Your task to perform on an android device: toggle translation in the chrome app Image 0: 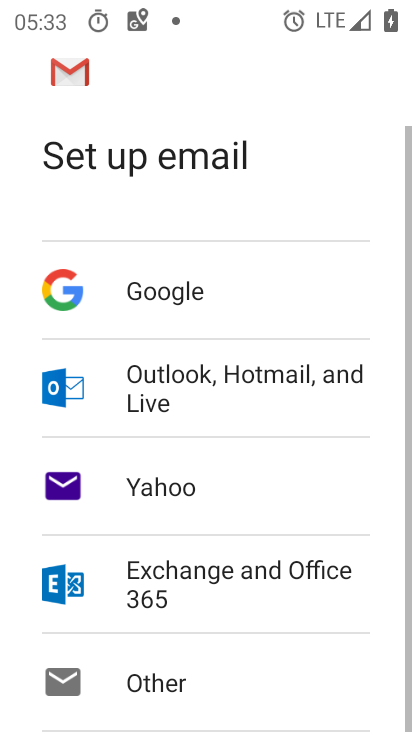
Step 0: press home button
Your task to perform on an android device: toggle translation in the chrome app Image 1: 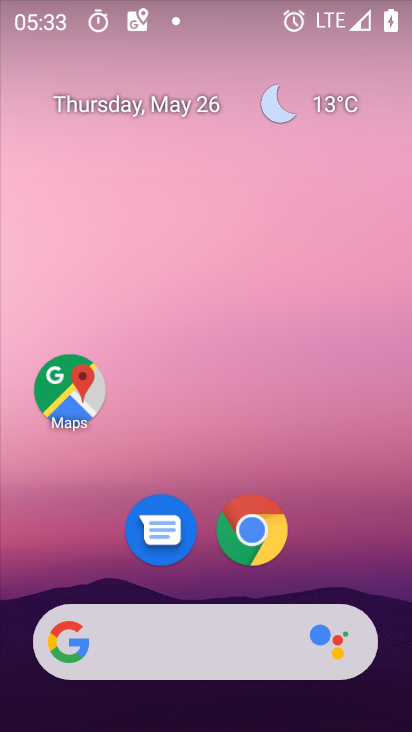
Step 1: drag from (197, 662) to (267, 12)
Your task to perform on an android device: toggle translation in the chrome app Image 2: 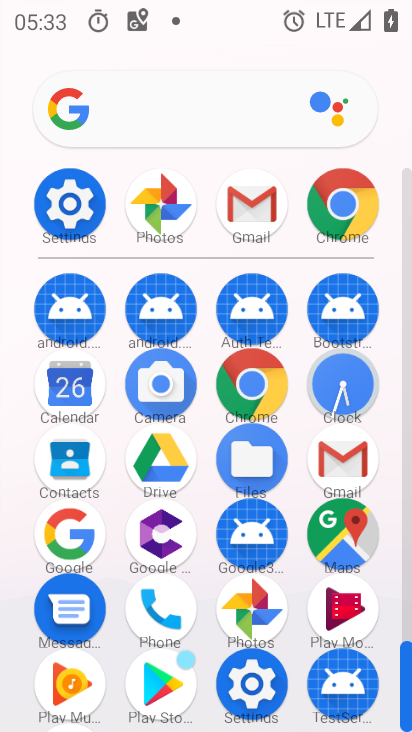
Step 2: click (243, 387)
Your task to perform on an android device: toggle translation in the chrome app Image 3: 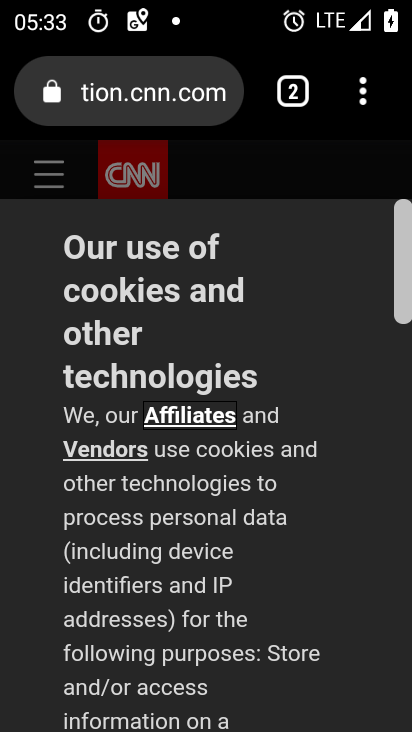
Step 3: drag from (358, 82) to (202, 578)
Your task to perform on an android device: toggle translation in the chrome app Image 4: 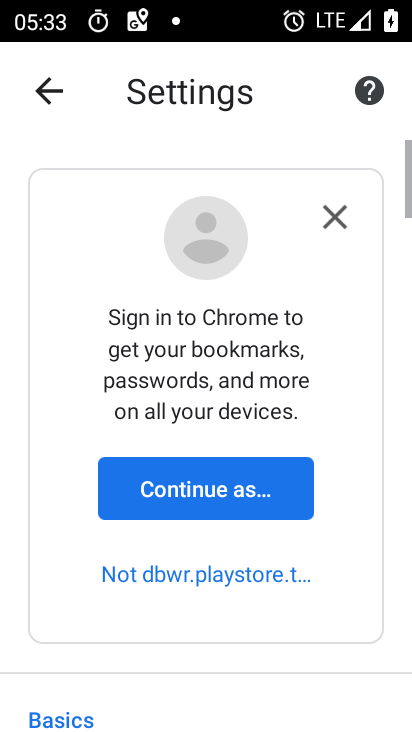
Step 4: drag from (222, 623) to (206, 69)
Your task to perform on an android device: toggle translation in the chrome app Image 5: 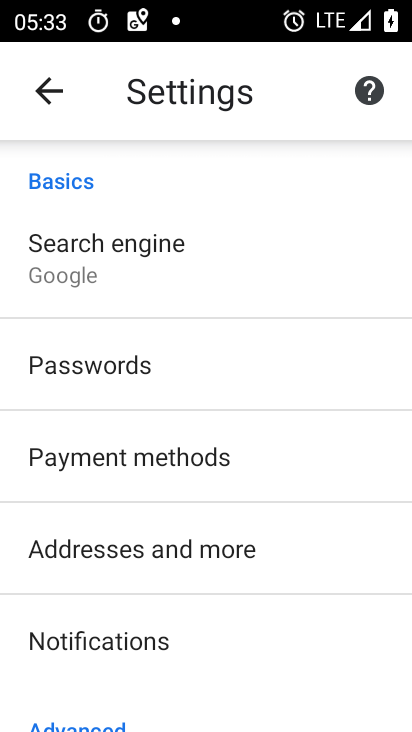
Step 5: drag from (246, 694) to (270, 140)
Your task to perform on an android device: toggle translation in the chrome app Image 6: 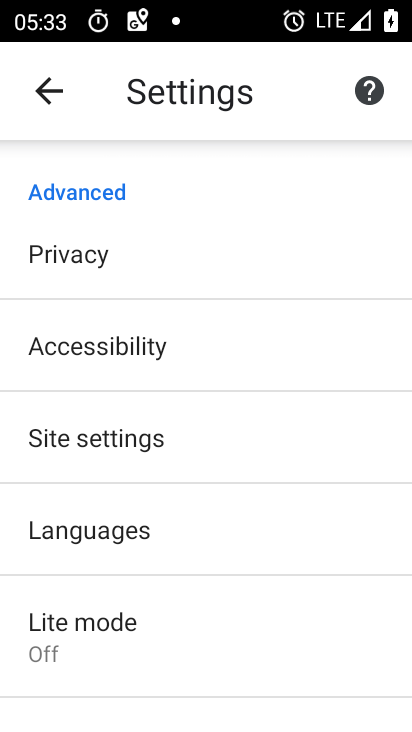
Step 6: click (215, 540)
Your task to perform on an android device: toggle translation in the chrome app Image 7: 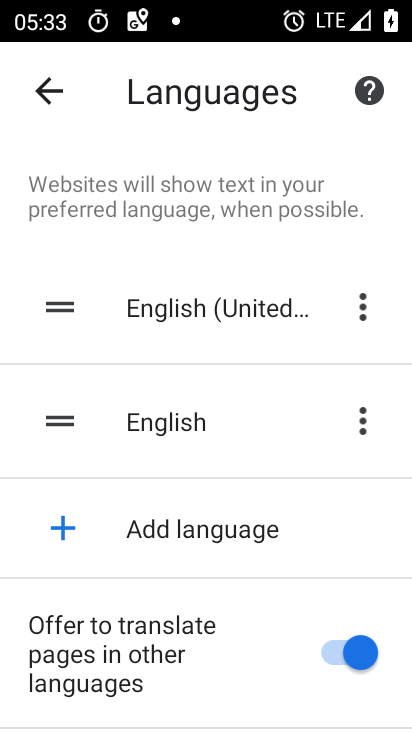
Step 7: click (344, 651)
Your task to perform on an android device: toggle translation in the chrome app Image 8: 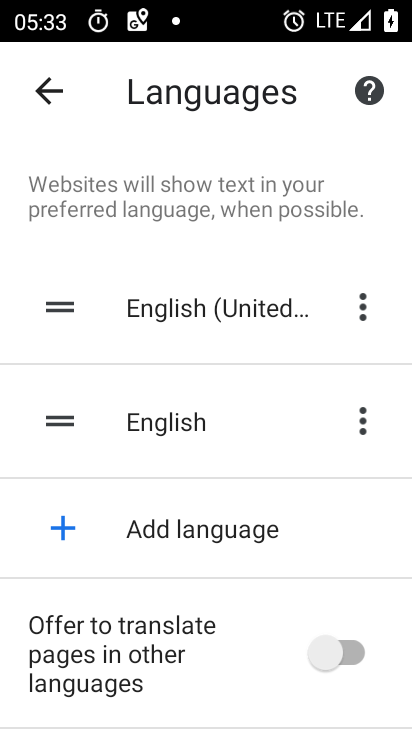
Step 8: task complete